Your task to perform on an android device: What's the weather going to be tomorrow? Image 0: 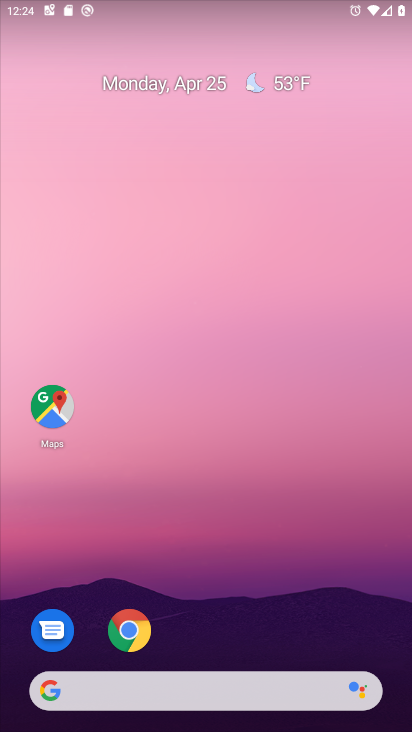
Step 0: click (172, 26)
Your task to perform on an android device: What's the weather going to be tomorrow? Image 1: 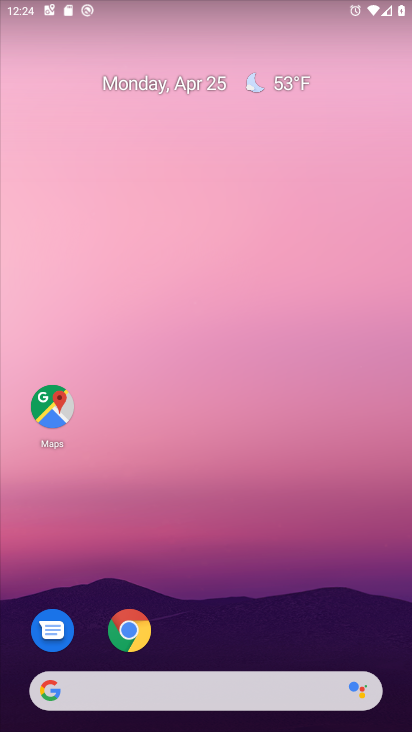
Step 1: drag from (222, 524) to (388, 709)
Your task to perform on an android device: What's the weather going to be tomorrow? Image 2: 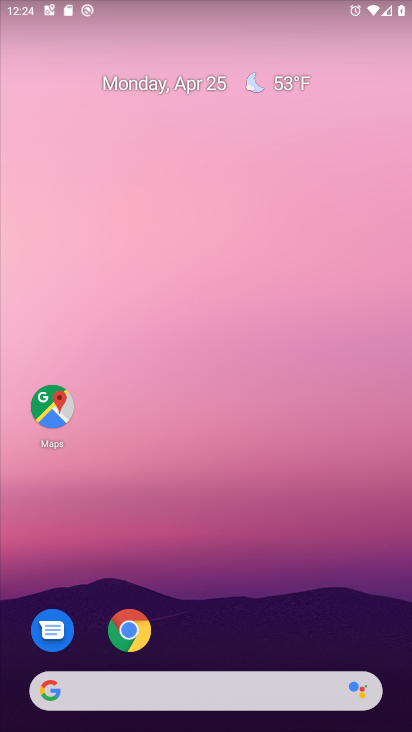
Step 2: drag from (224, 614) to (219, 208)
Your task to perform on an android device: What's the weather going to be tomorrow? Image 3: 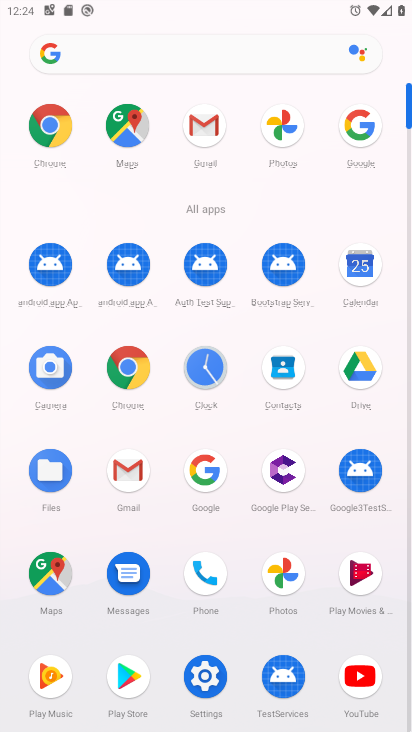
Step 3: click (197, 474)
Your task to perform on an android device: What's the weather going to be tomorrow? Image 4: 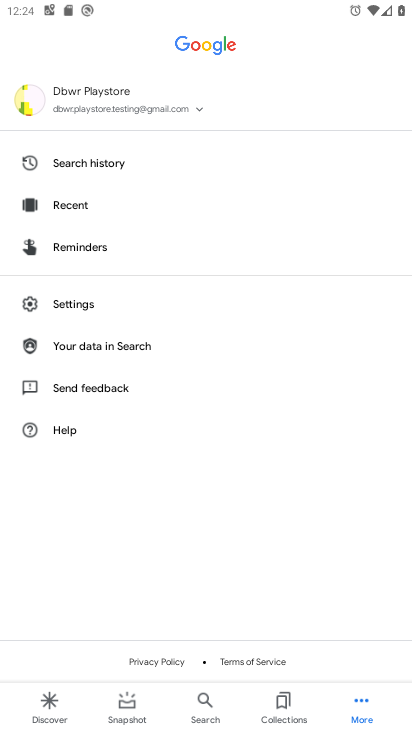
Step 4: click (41, 713)
Your task to perform on an android device: What's the weather going to be tomorrow? Image 5: 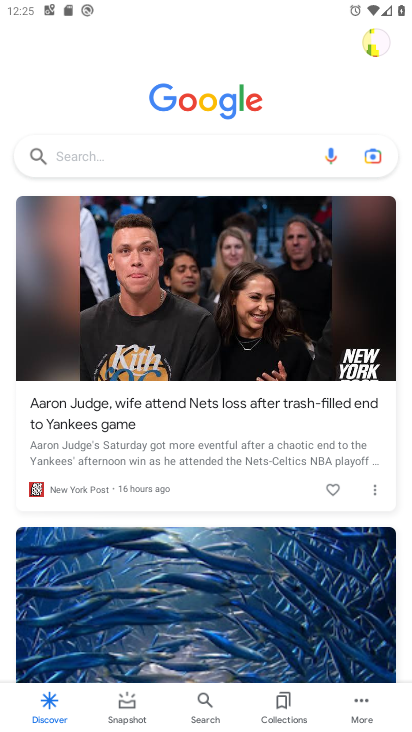
Step 5: click (156, 153)
Your task to perform on an android device: What's the weather going to be tomorrow? Image 6: 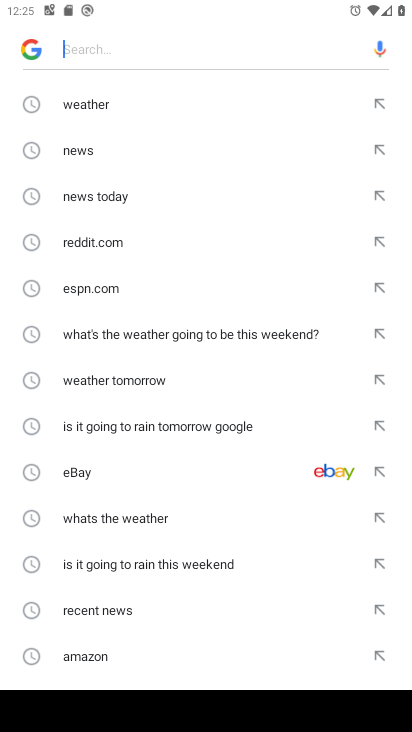
Step 6: click (189, 376)
Your task to perform on an android device: What's the weather going to be tomorrow? Image 7: 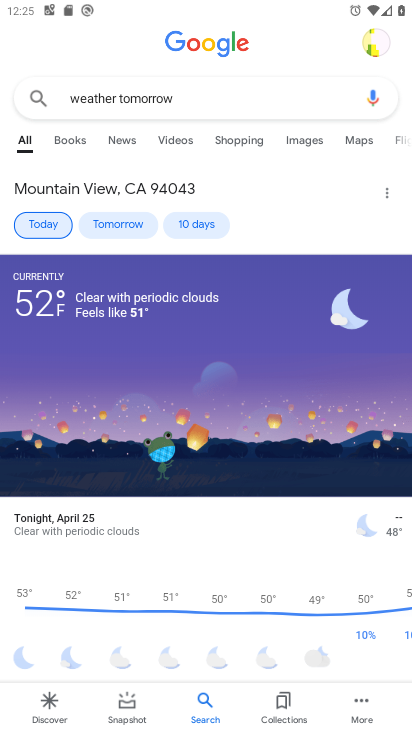
Step 7: task complete